Your task to perform on an android device: turn off javascript in the chrome app Image 0: 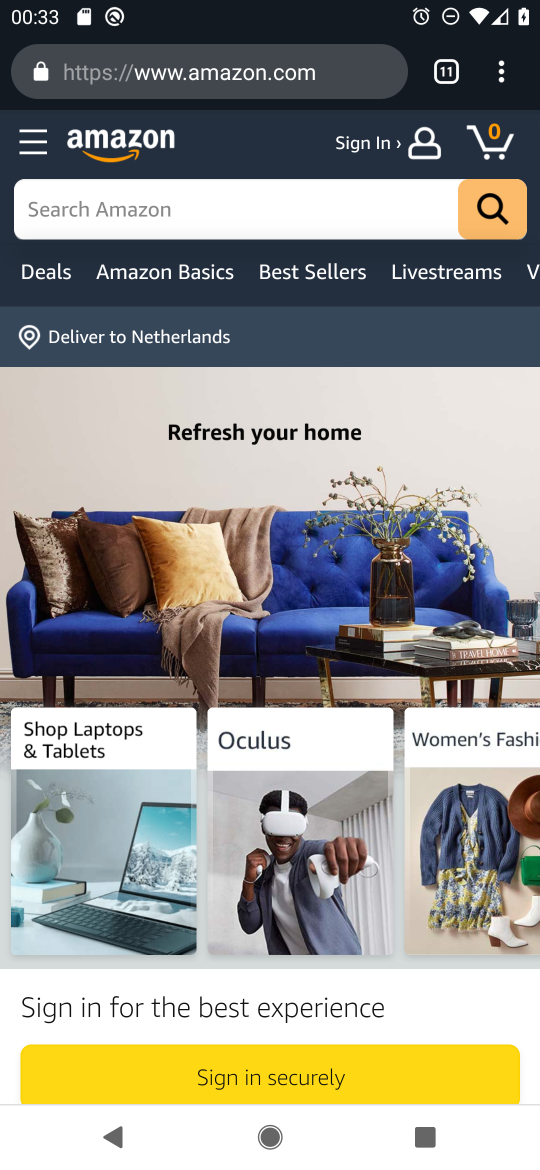
Step 0: press home button
Your task to perform on an android device: turn off javascript in the chrome app Image 1: 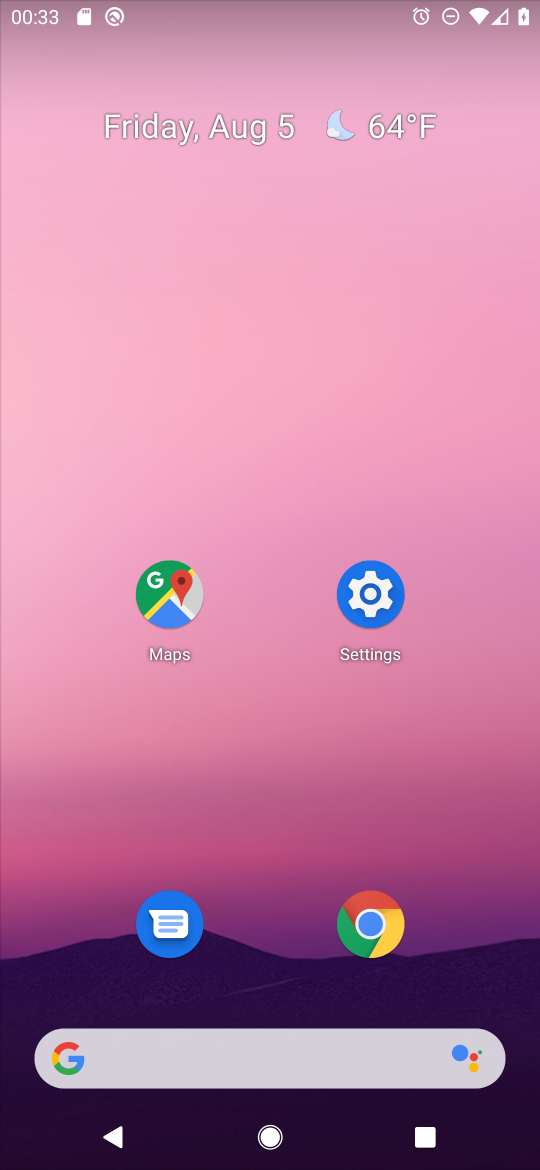
Step 1: click (373, 925)
Your task to perform on an android device: turn off javascript in the chrome app Image 2: 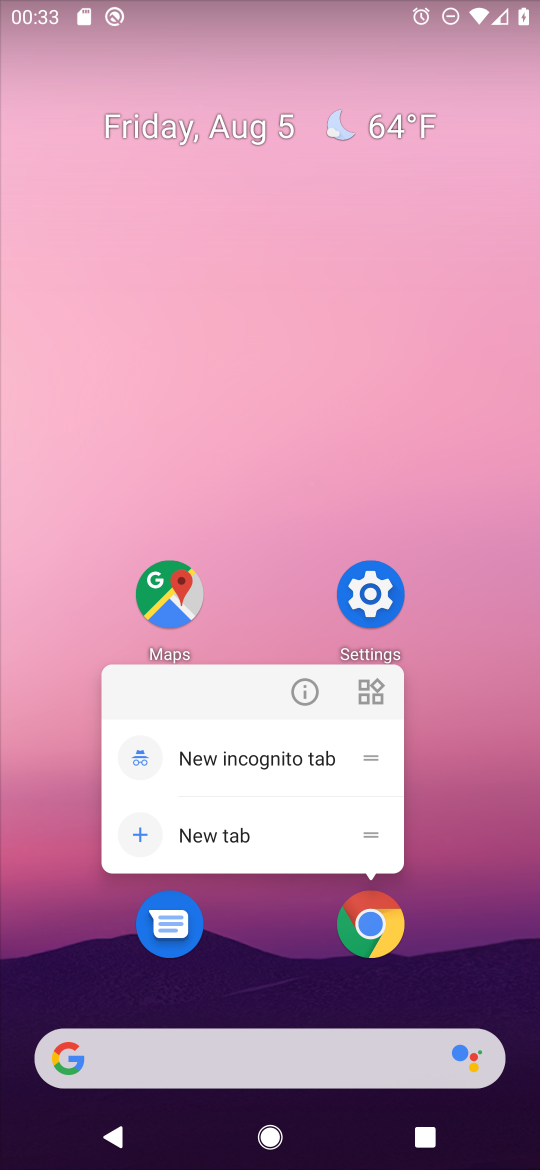
Step 2: click (373, 926)
Your task to perform on an android device: turn off javascript in the chrome app Image 3: 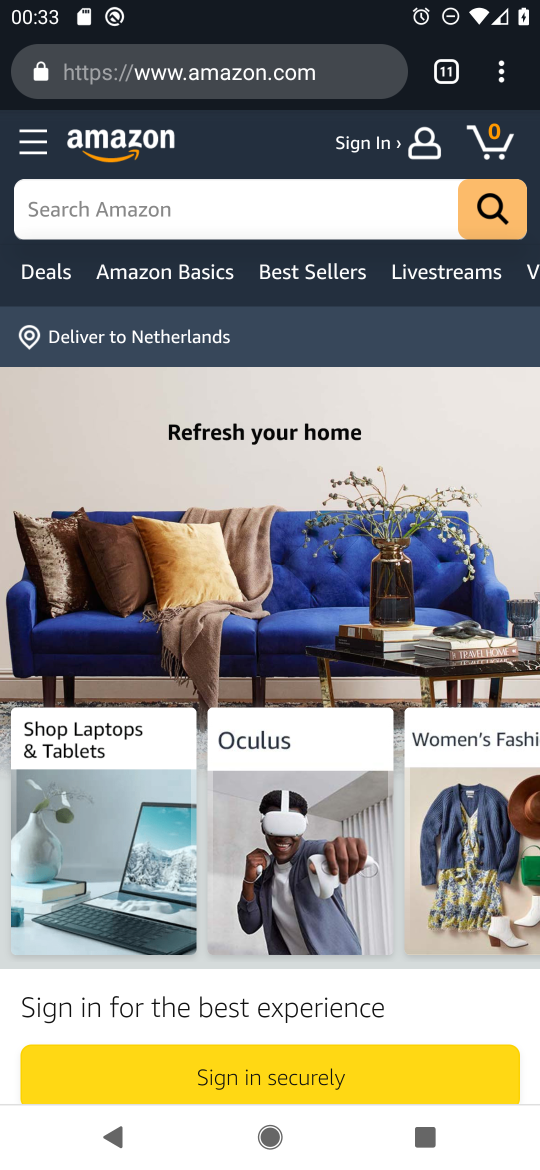
Step 3: drag from (506, 74) to (336, 864)
Your task to perform on an android device: turn off javascript in the chrome app Image 4: 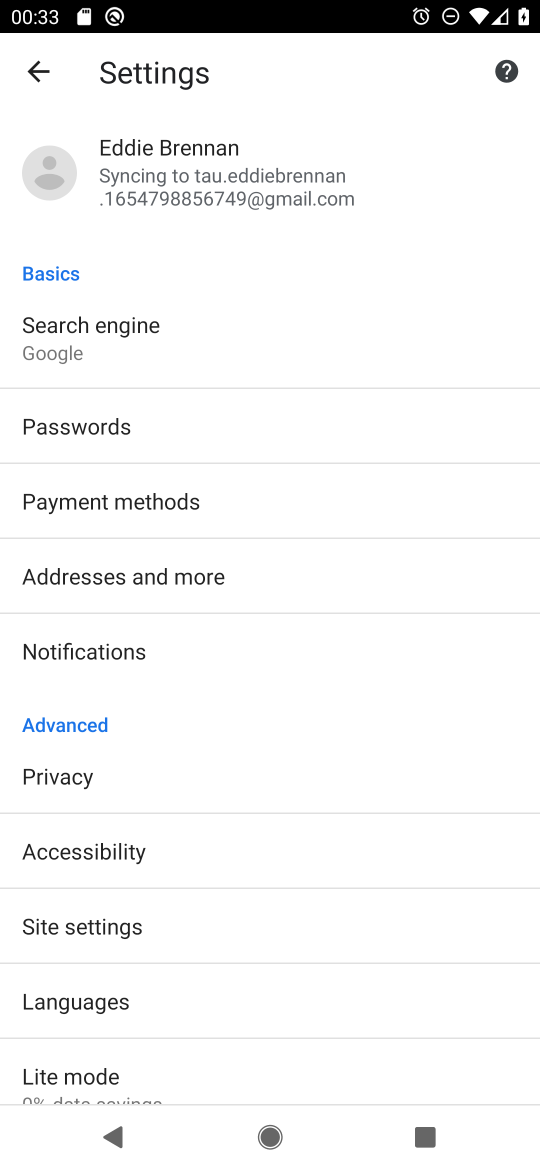
Step 4: click (102, 922)
Your task to perform on an android device: turn off javascript in the chrome app Image 5: 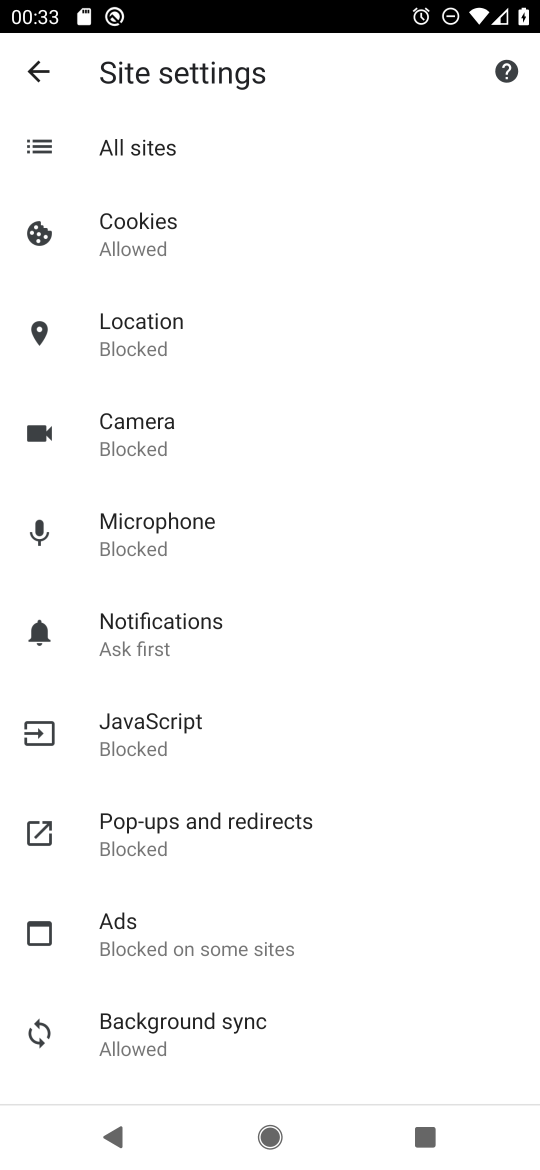
Step 5: click (127, 723)
Your task to perform on an android device: turn off javascript in the chrome app Image 6: 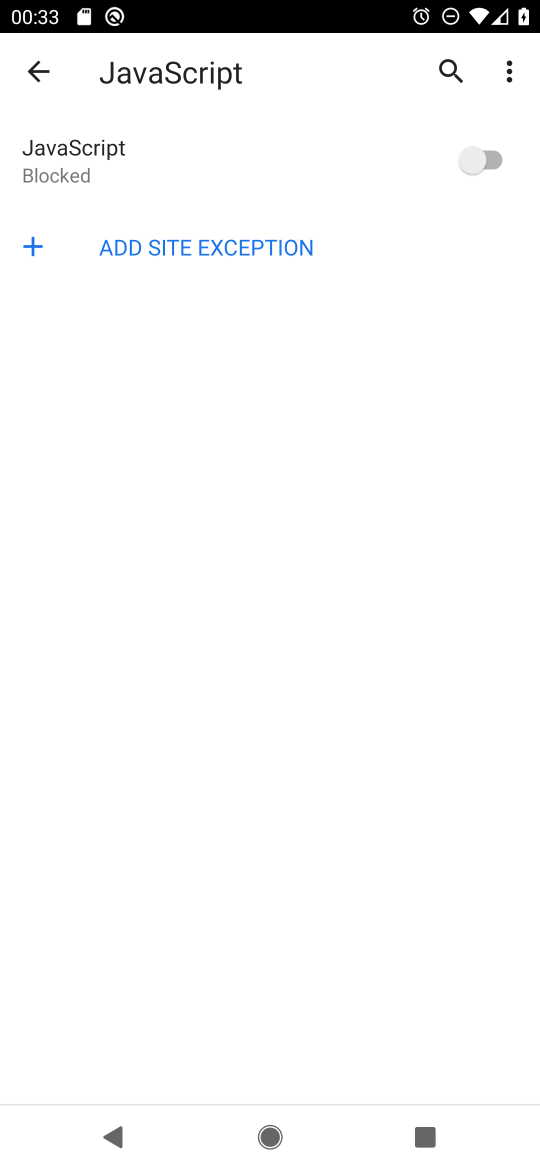
Step 6: task complete